Your task to perform on an android device: clear history in the chrome app Image 0: 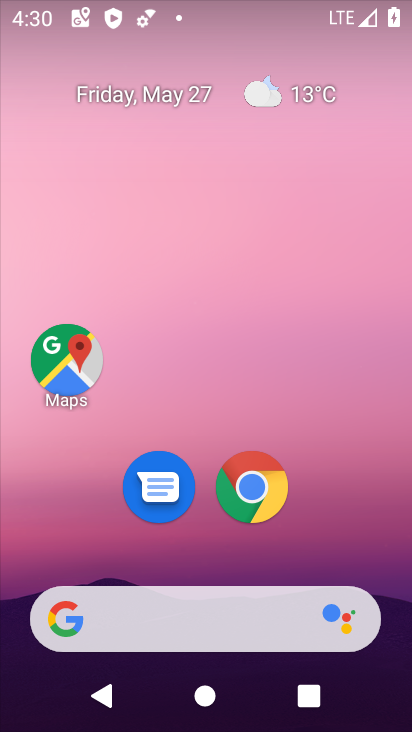
Step 0: click (254, 485)
Your task to perform on an android device: clear history in the chrome app Image 1: 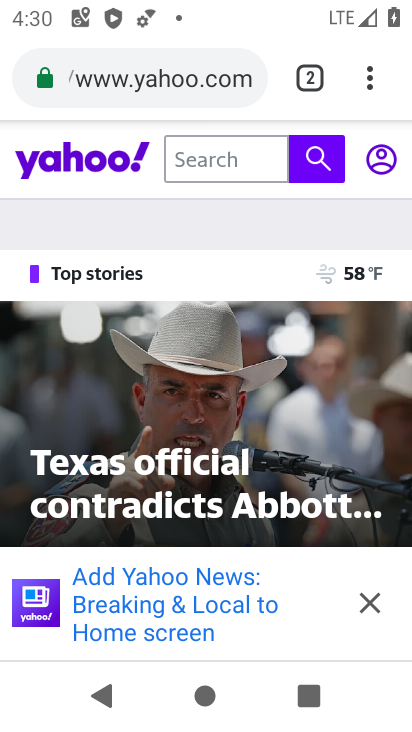
Step 1: drag from (367, 76) to (195, 444)
Your task to perform on an android device: clear history in the chrome app Image 2: 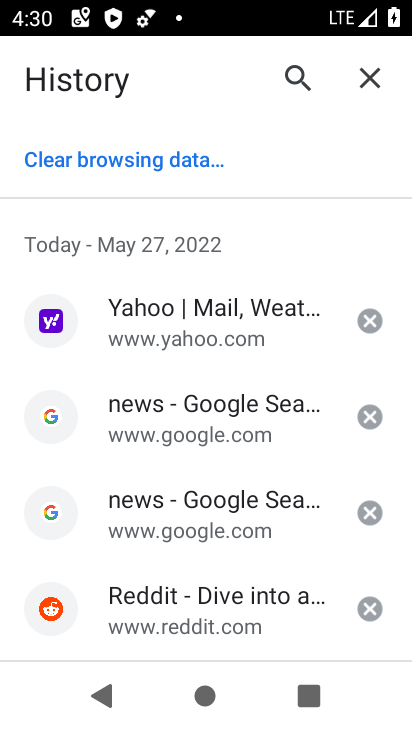
Step 2: click (124, 165)
Your task to perform on an android device: clear history in the chrome app Image 3: 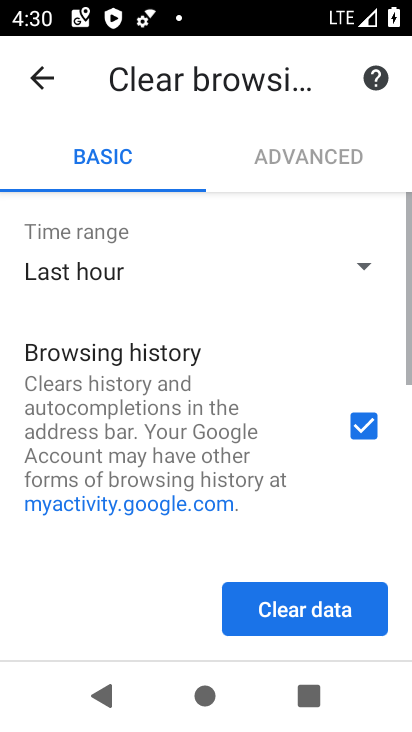
Step 3: drag from (194, 458) to (186, 26)
Your task to perform on an android device: clear history in the chrome app Image 4: 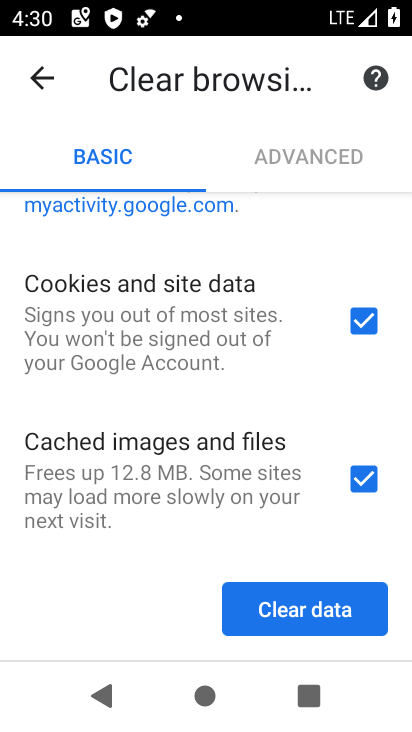
Step 4: click (345, 585)
Your task to perform on an android device: clear history in the chrome app Image 5: 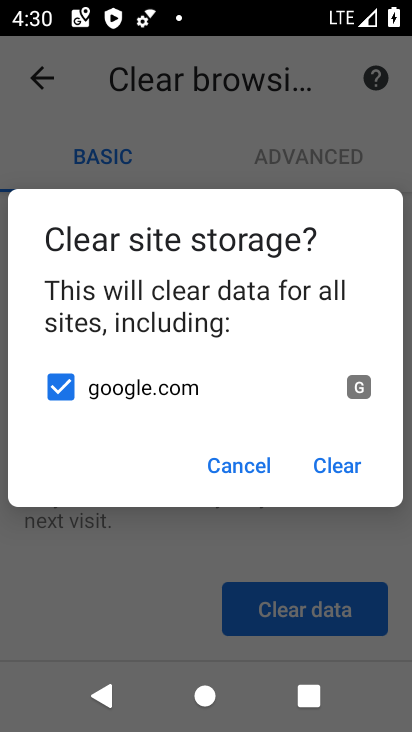
Step 5: click (327, 475)
Your task to perform on an android device: clear history in the chrome app Image 6: 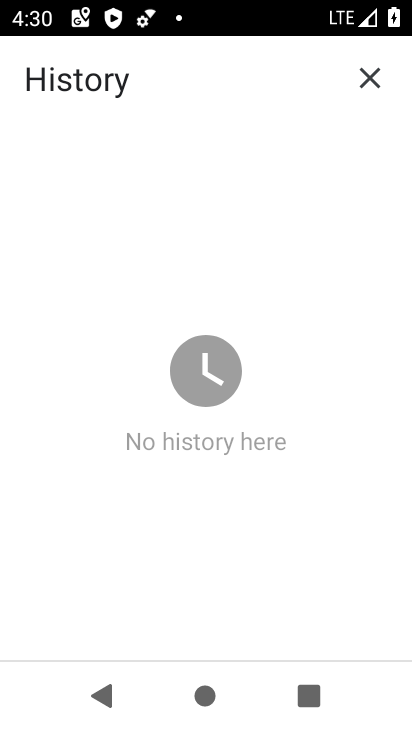
Step 6: task complete